Your task to perform on an android device: Check the weather Image 0: 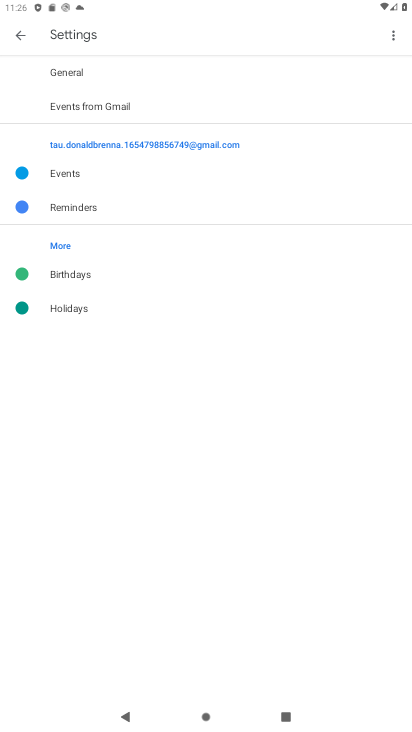
Step 0: press home button
Your task to perform on an android device: Check the weather Image 1: 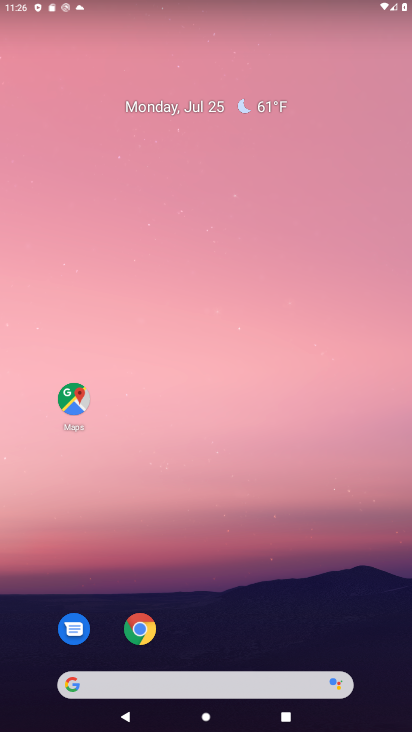
Step 1: drag from (210, 638) to (245, 180)
Your task to perform on an android device: Check the weather Image 2: 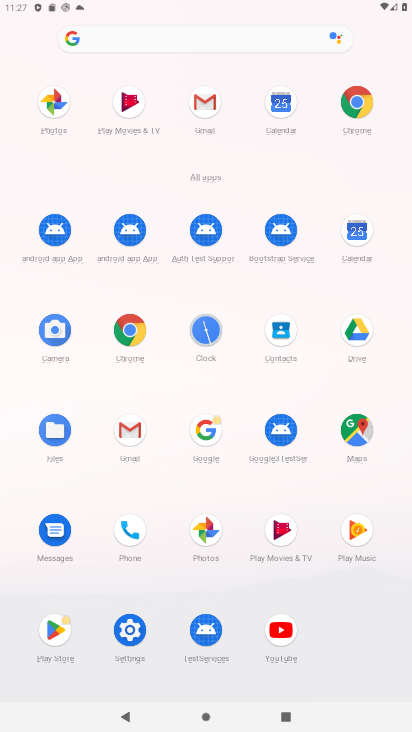
Step 2: click (110, 36)
Your task to perform on an android device: Check the weather Image 3: 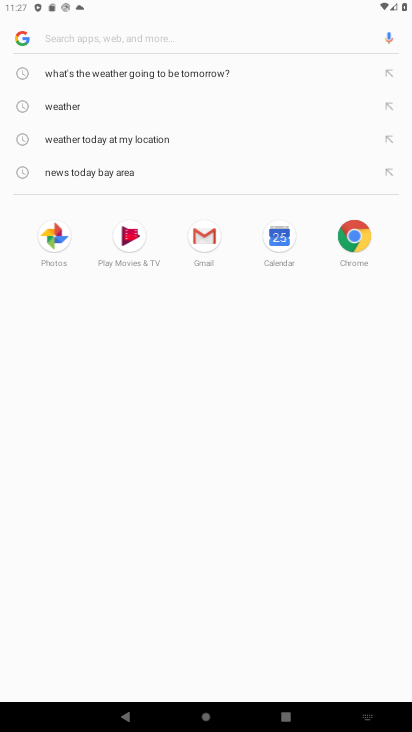
Step 3: click (61, 113)
Your task to perform on an android device: Check the weather Image 4: 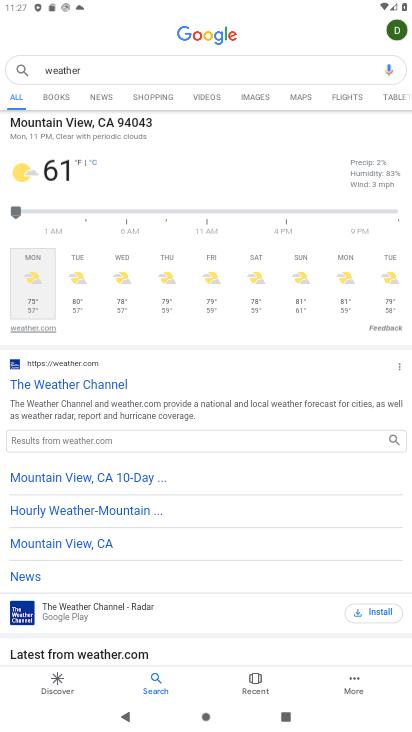
Step 4: task complete